Your task to perform on an android device: open sync settings in chrome Image 0: 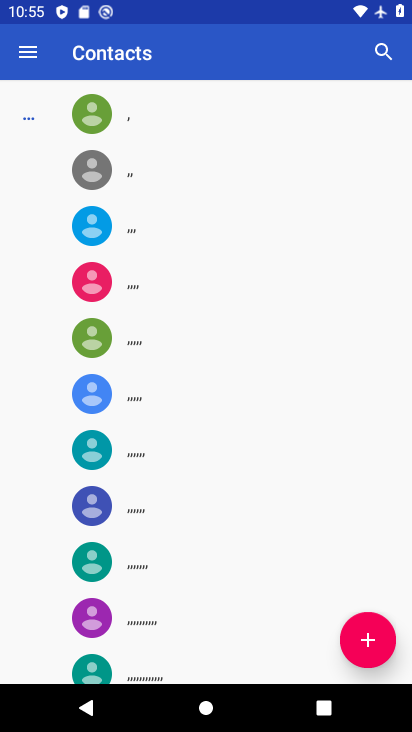
Step 0: press home button
Your task to perform on an android device: open sync settings in chrome Image 1: 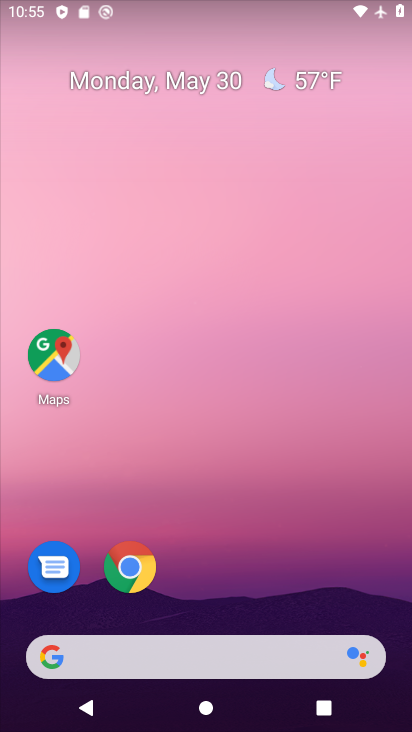
Step 1: click (151, 568)
Your task to perform on an android device: open sync settings in chrome Image 2: 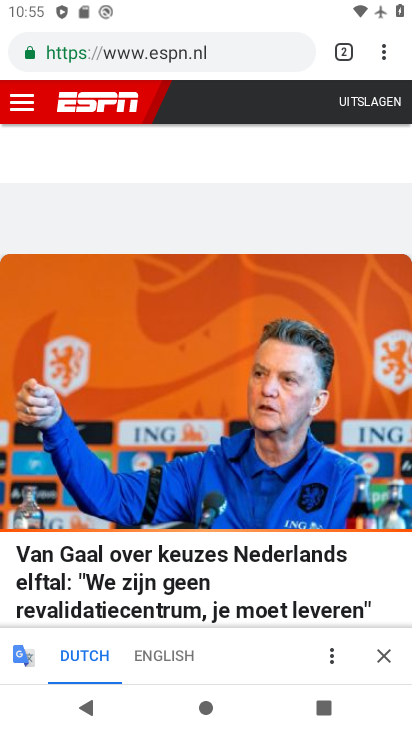
Step 2: click (373, 50)
Your task to perform on an android device: open sync settings in chrome Image 3: 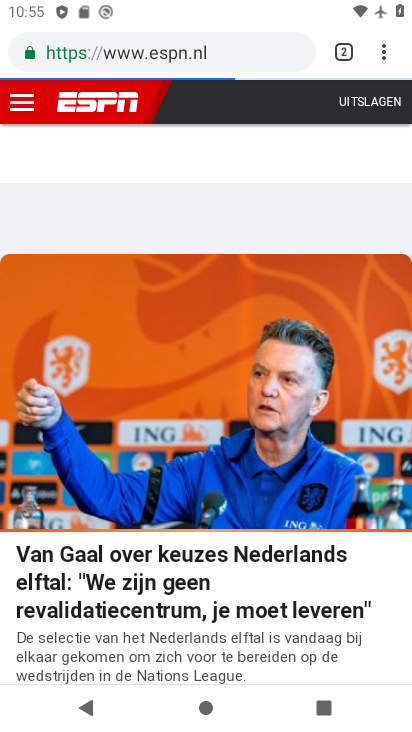
Step 3: click (382, 56)
Your task to perform on an android device: open sync settings in chrome Image 4: 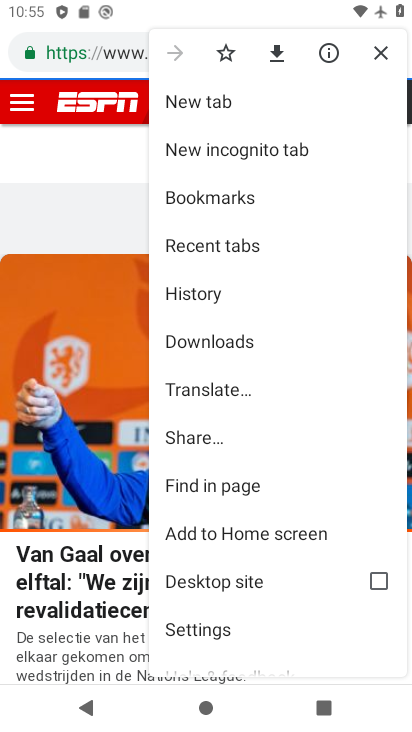
Step 4: drag from (279, 536) to (264, 289)
Your task to perform on an android device: open sync settings in chrome Image 5: 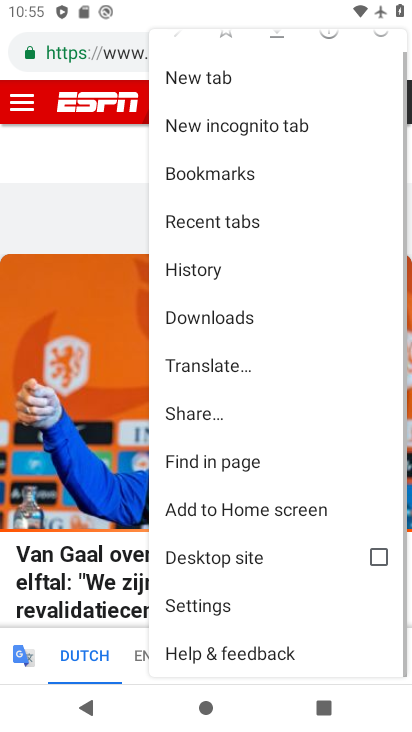
Step 5: click (226, 611)
Your task to perform on an android device: open sync settings in chrome Image 6: 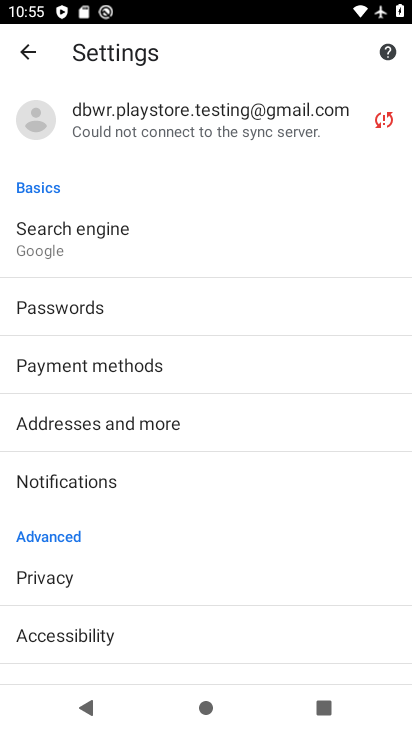
Step 6: click (112, 109)
Your task to perform on an android device: open sync settings in chrome Image 7: 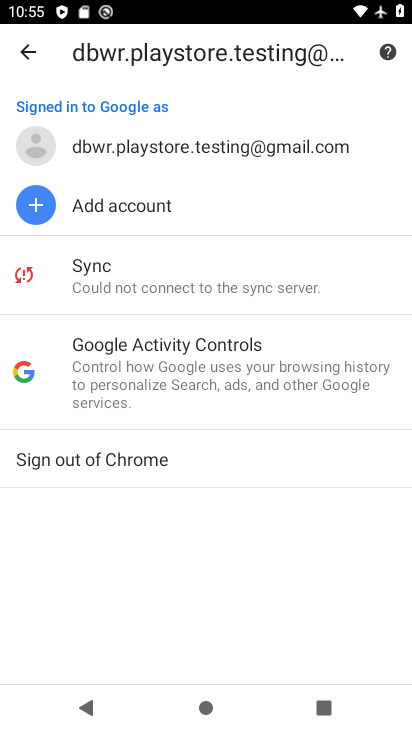
Step 7: click (177, 296)
Your task to perform on an android device: open sync settings in chrome Image 8: 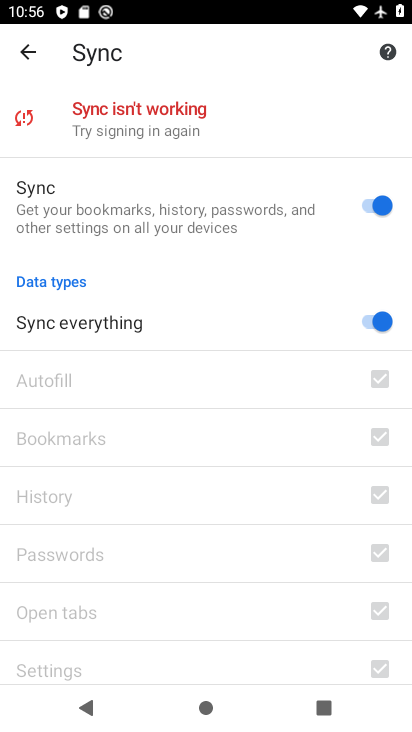
Step 8: task complete